Your task to perform on an android device: turn on the 12-hour format for clock Image 0: 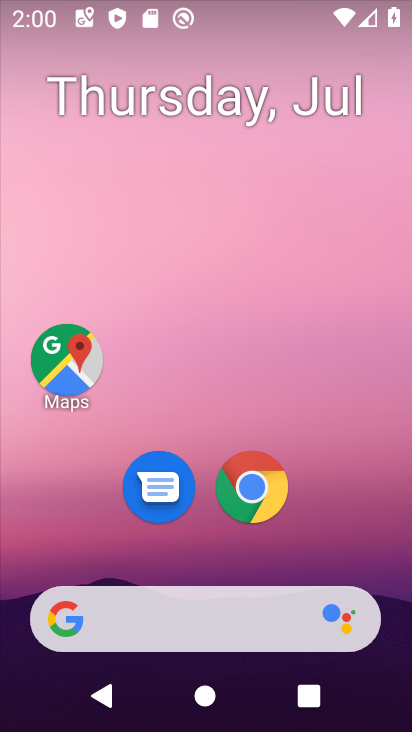
Step 0: drag from (378, 542) to (380, 182)
Your task to perform on an android device: turn on the 12-hour format for clock Image 1: 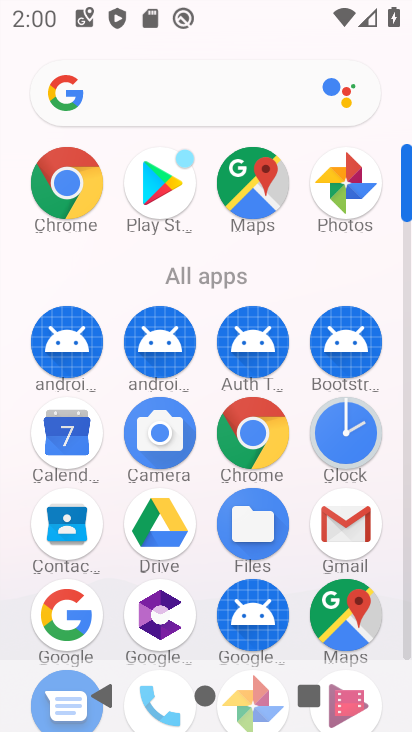
Step 1: click (355, 424)
Your task to perform on an android device: turn on the 12-hour format for clock Image 2: 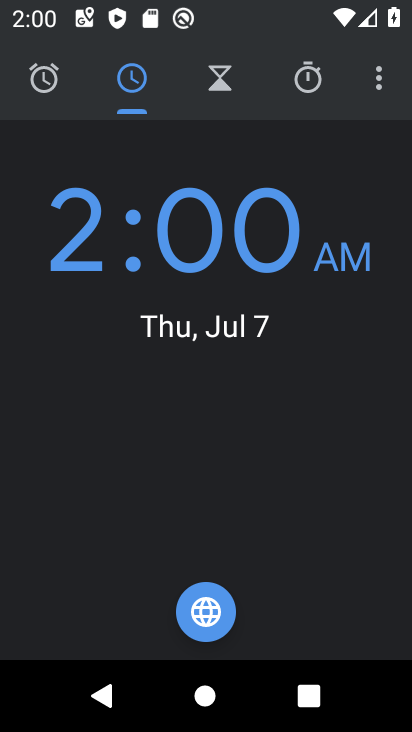
Step 2: click (379, 91)
Your task to perform on an android device: turn on the 12-hour format for clock Image 3: 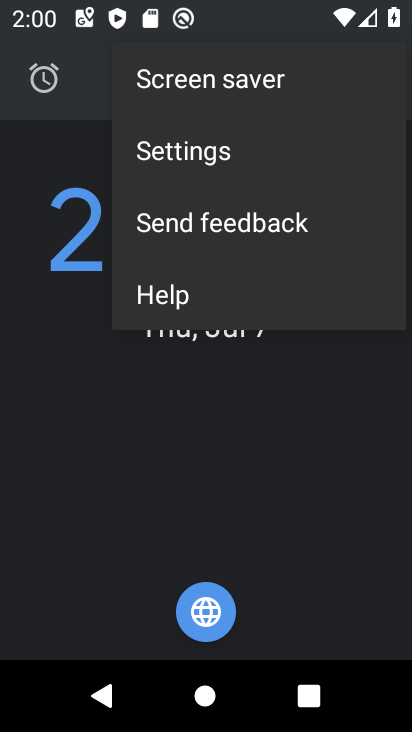
Step 3: click (293, 162)
Your task to perform on an android device: turn on the 12-hour format for clock Image 4: 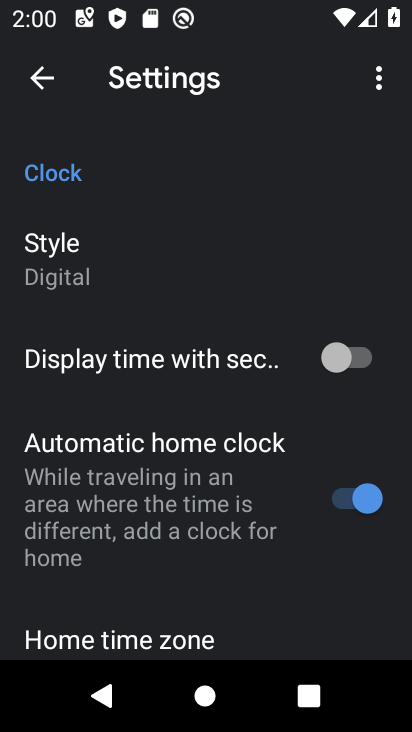
Step 4: drag from (284, 374) to (279, 291)
Your task to perform on an android device: turn on the 12-hour format for clock Image 5: 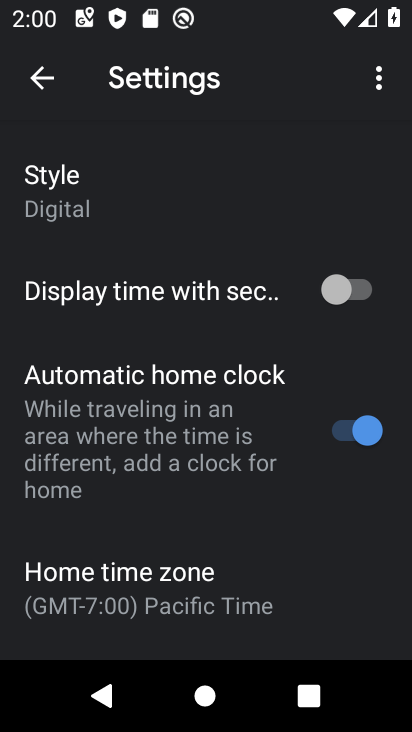
Step 5: drag from (293, 437) to (280, 339)
Your task to perform on an android device: turn on the 12-hour format for clock Image 6: 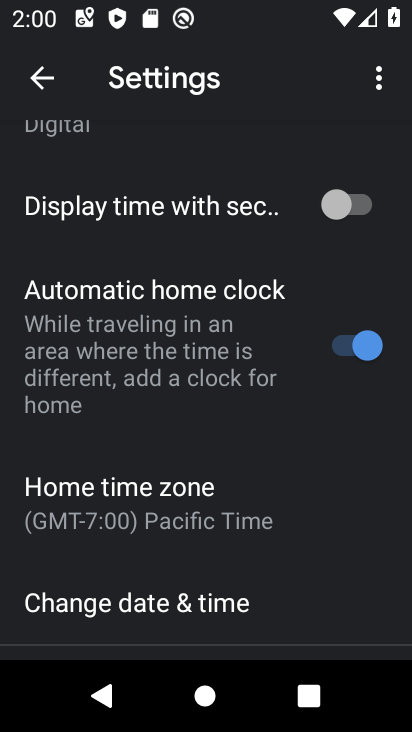
Step 6: drag from (311, 473) to (308, 369)
Your task to perform on an android device: turn on the 12-hour format for clock Image 7: 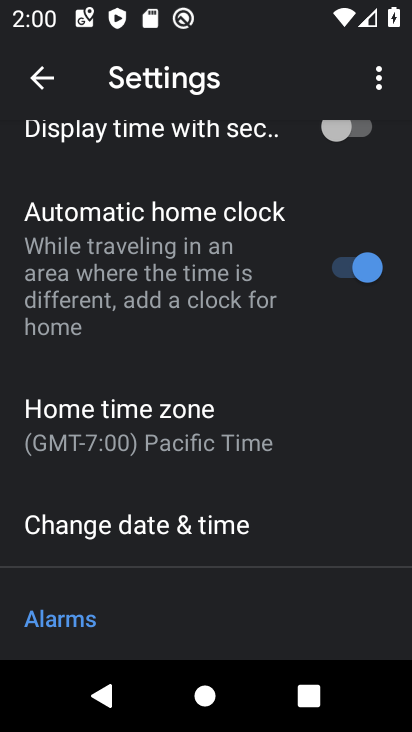
Step 7: drag from (301, 479) to (298, 382)
Your task to perform on an android device: turn on the 12-hour format for clock Image 8: 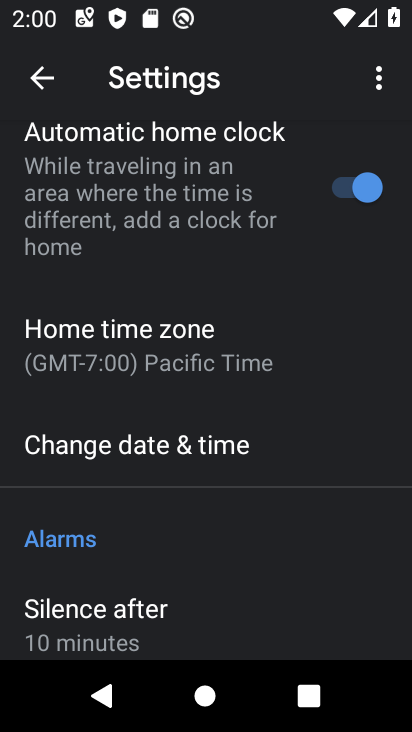
Step 8: drag from (292, 461) to (293, 384)
Your task to perform on an android device: turn on the 12-hour format for clock Image 9: 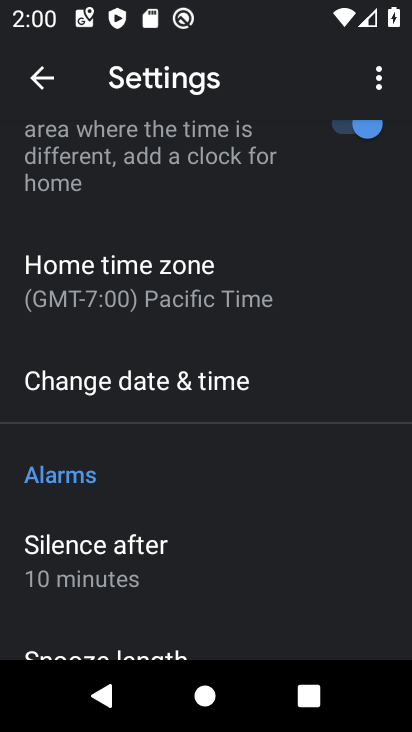
Step 9: drag from (291, 467) to (290, 415)
Your task to perform on an android device: turn on the 12-hour format for clock Image 10: 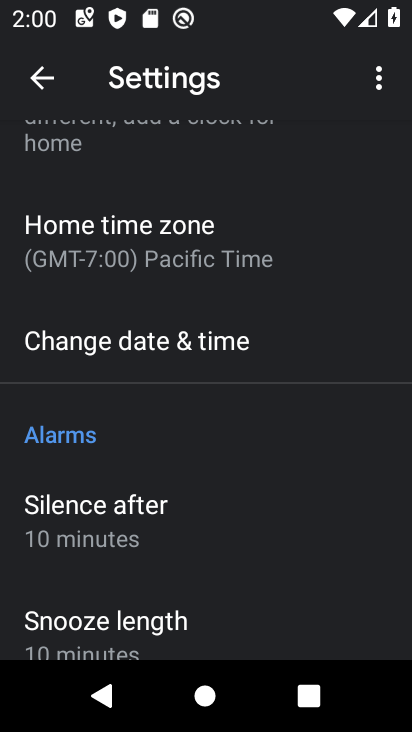
Step 10: click (251, 362)
Your task to perform on an android device: turn on the 12-hour format for clock Image 11: 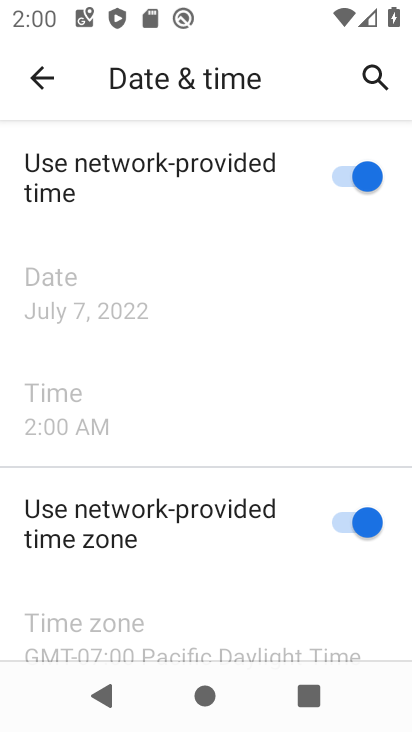
Step 11: task complete